Your task to perform on an android device: Open Yahoo.com Image 0: 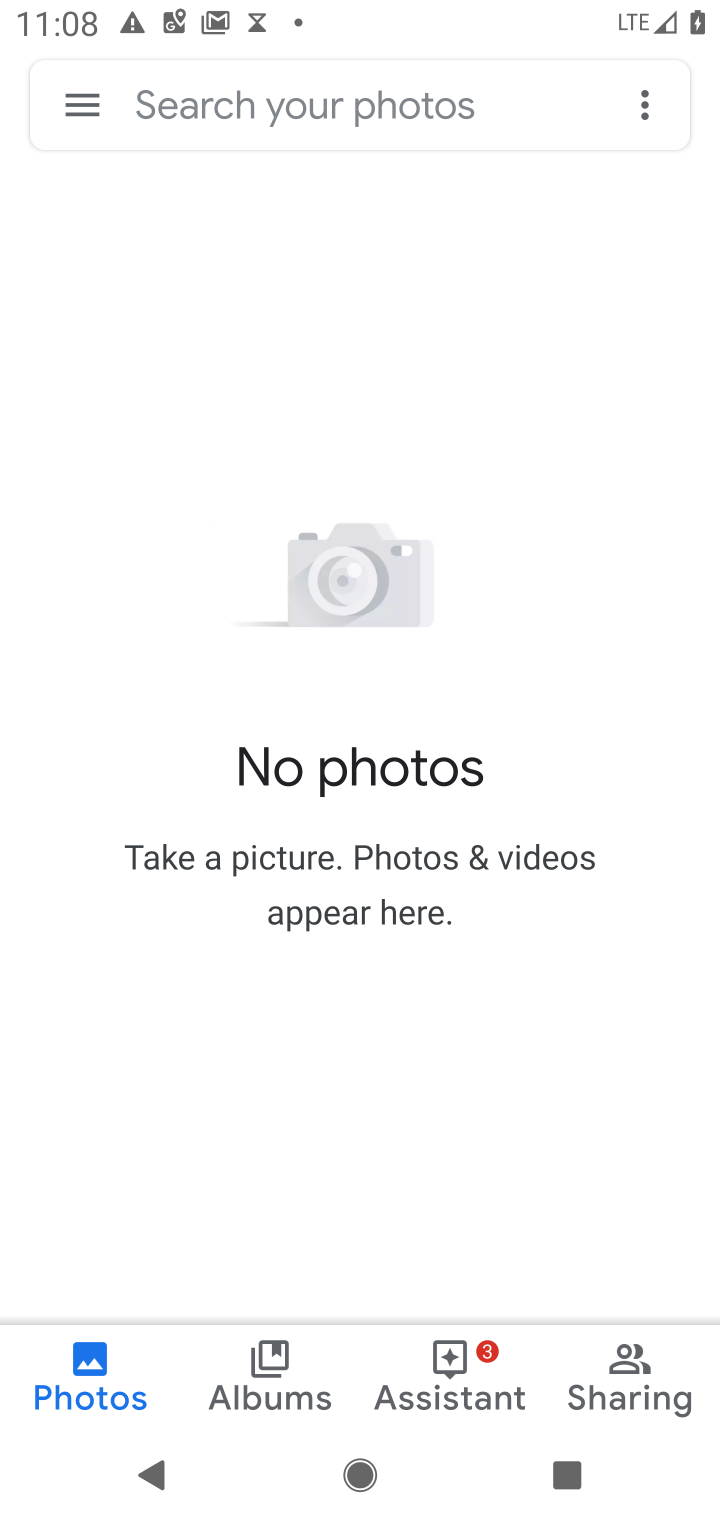
Step 0: press home button
Your task to perform on an android device: Open Yahoo.com Image 1: 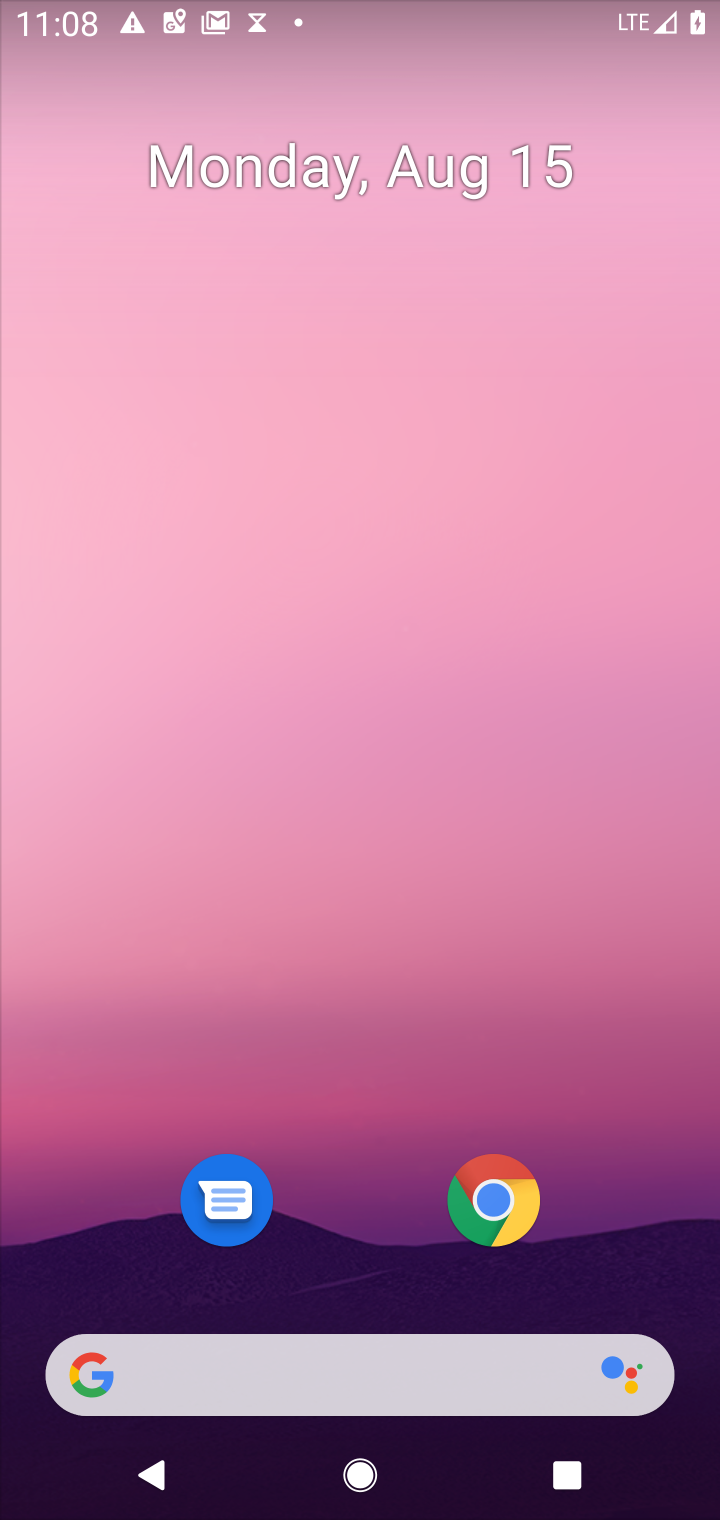
Step 1: click (519, 1207)
Your task to perform on an android device: Open Yahoo.com Image 2: 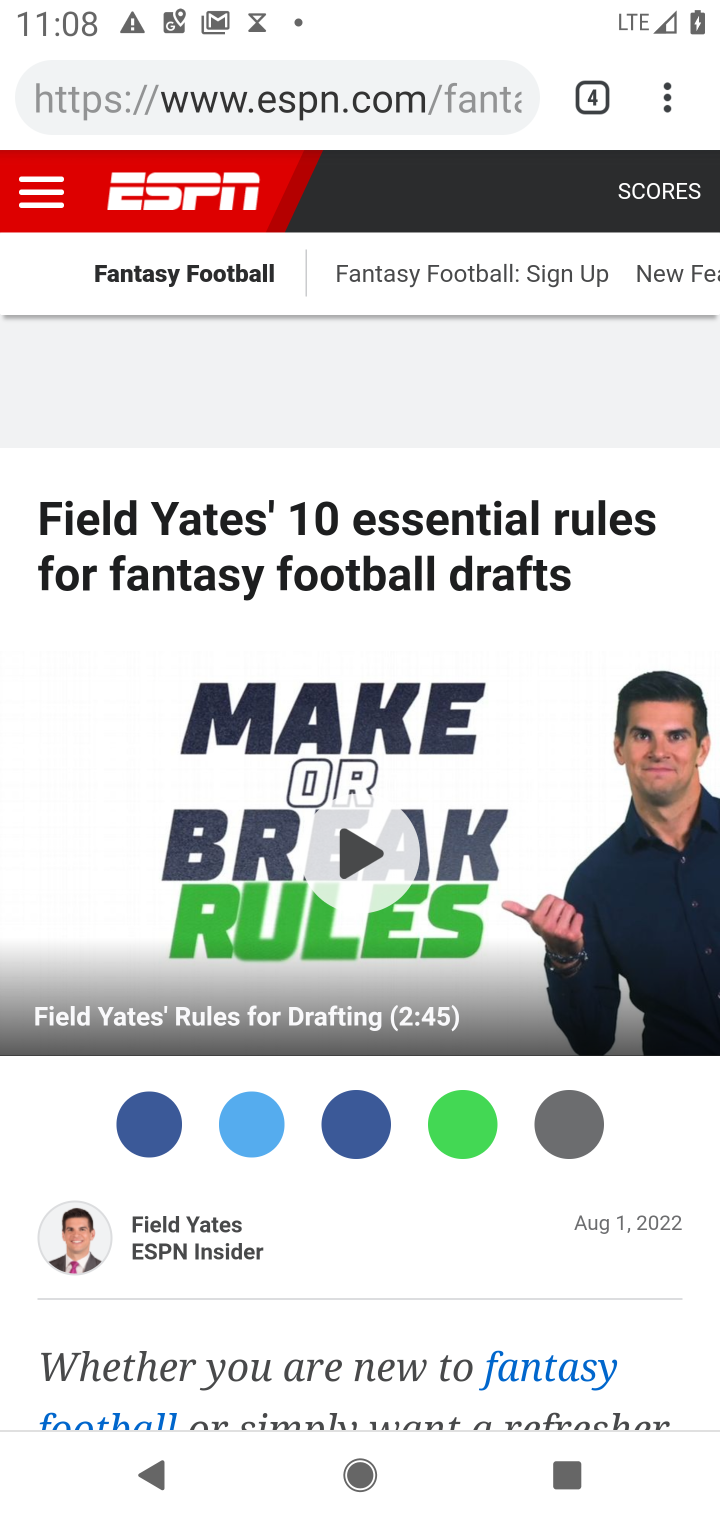
Step 2: click (584, 83)
Your task to perform on an android device: Open Yahoo.com Image 3: 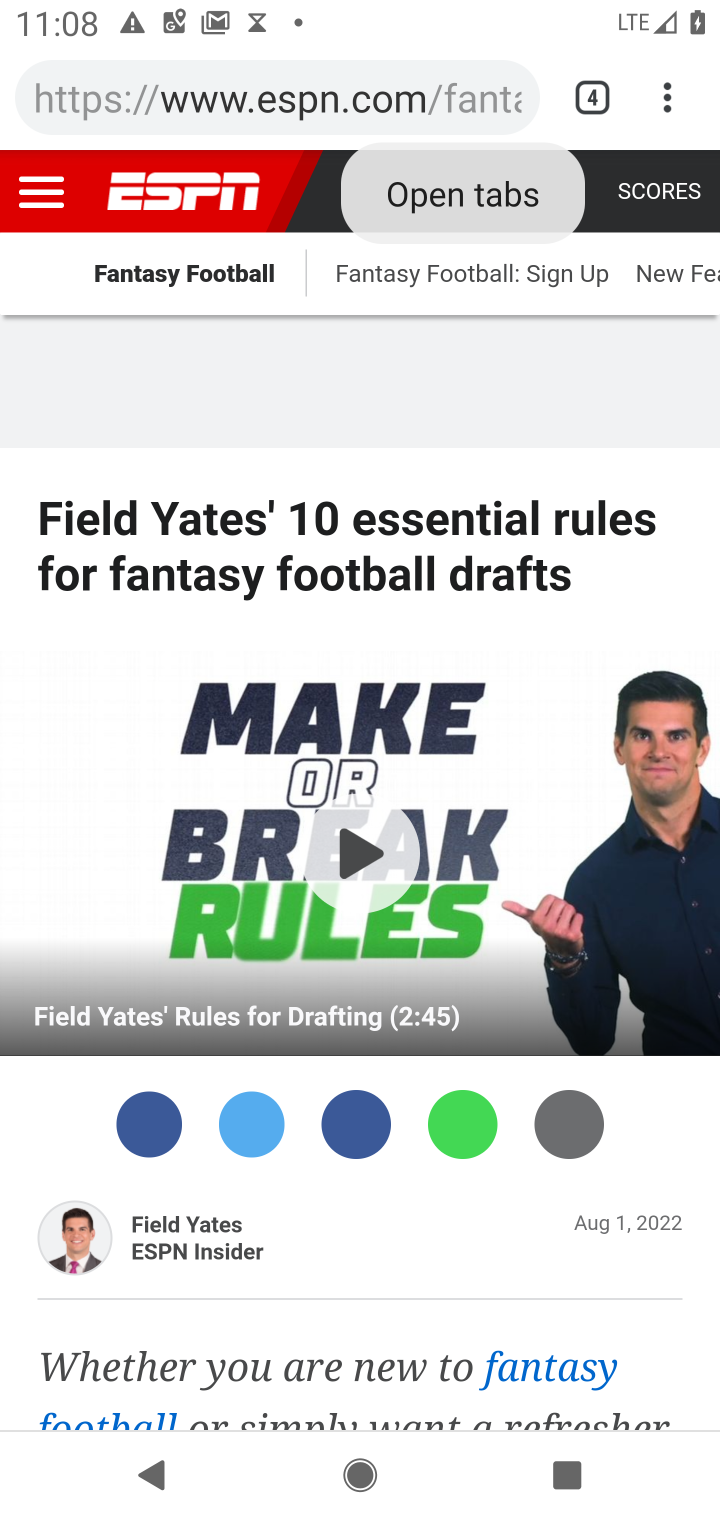
Step 3: click (587, 85)
Your task to perform on an android device: Open Yahoo.com Image 4: 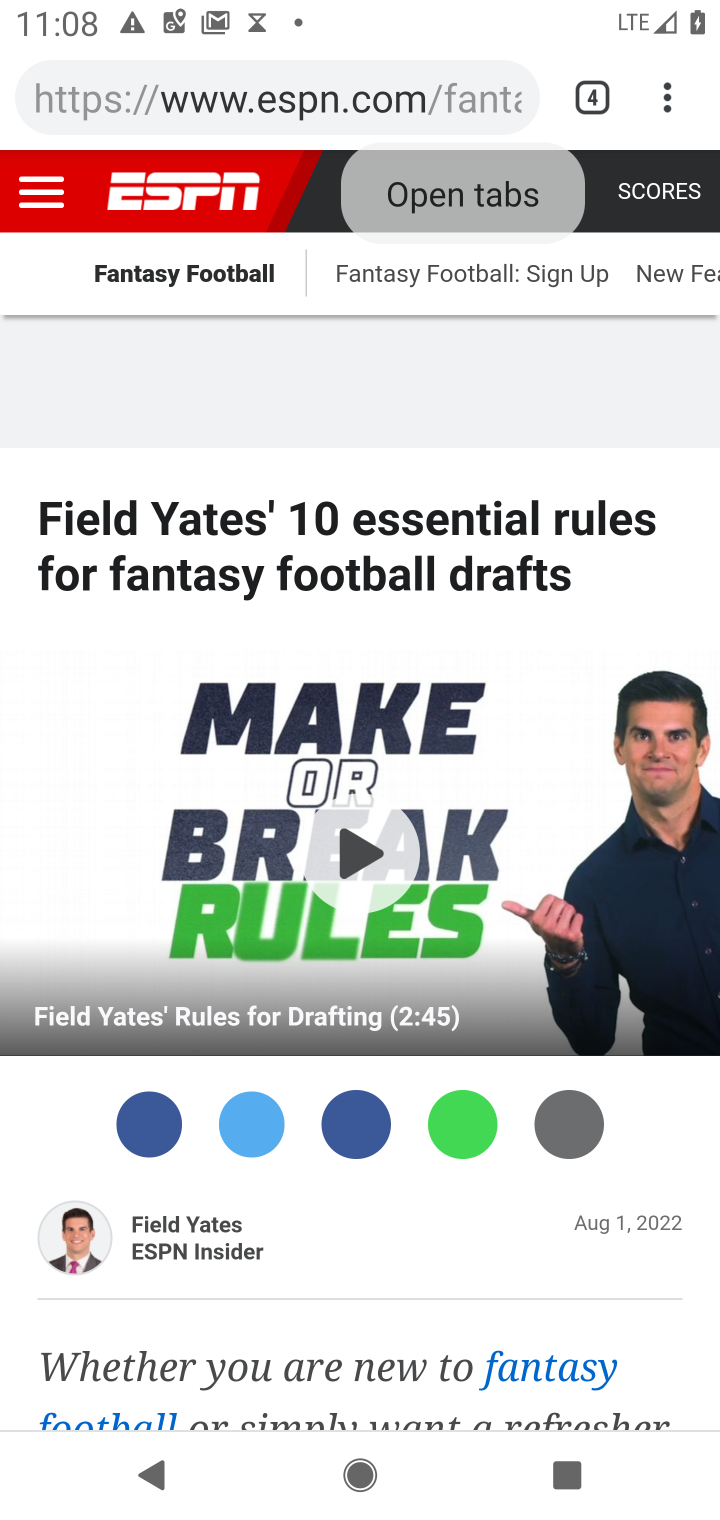
Step 4: click (604, 97)
Your task to perform on an android device: Open Yahoo.com Image 5: 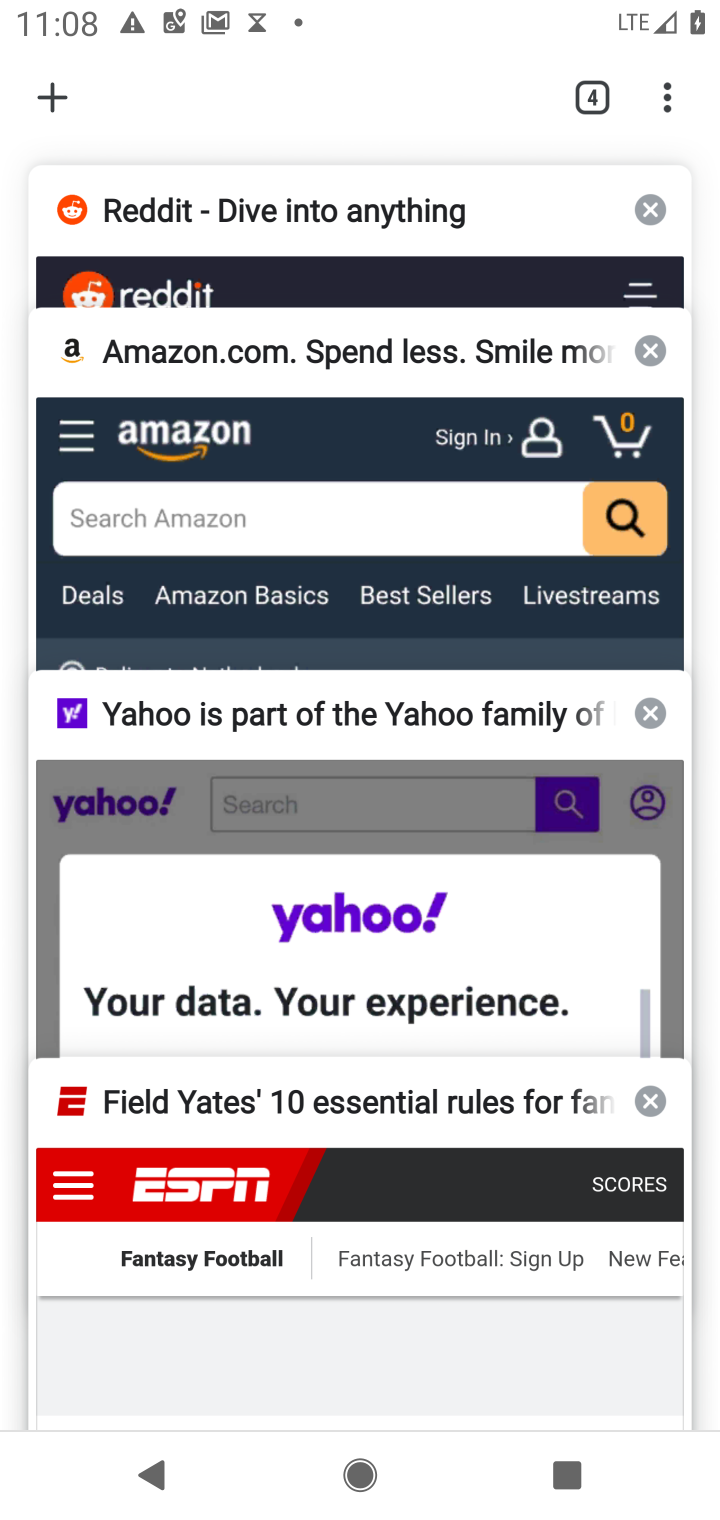
Step 5: click (57, 99)
Your task to perform on an android device: Open Yahoo.com Image 6: 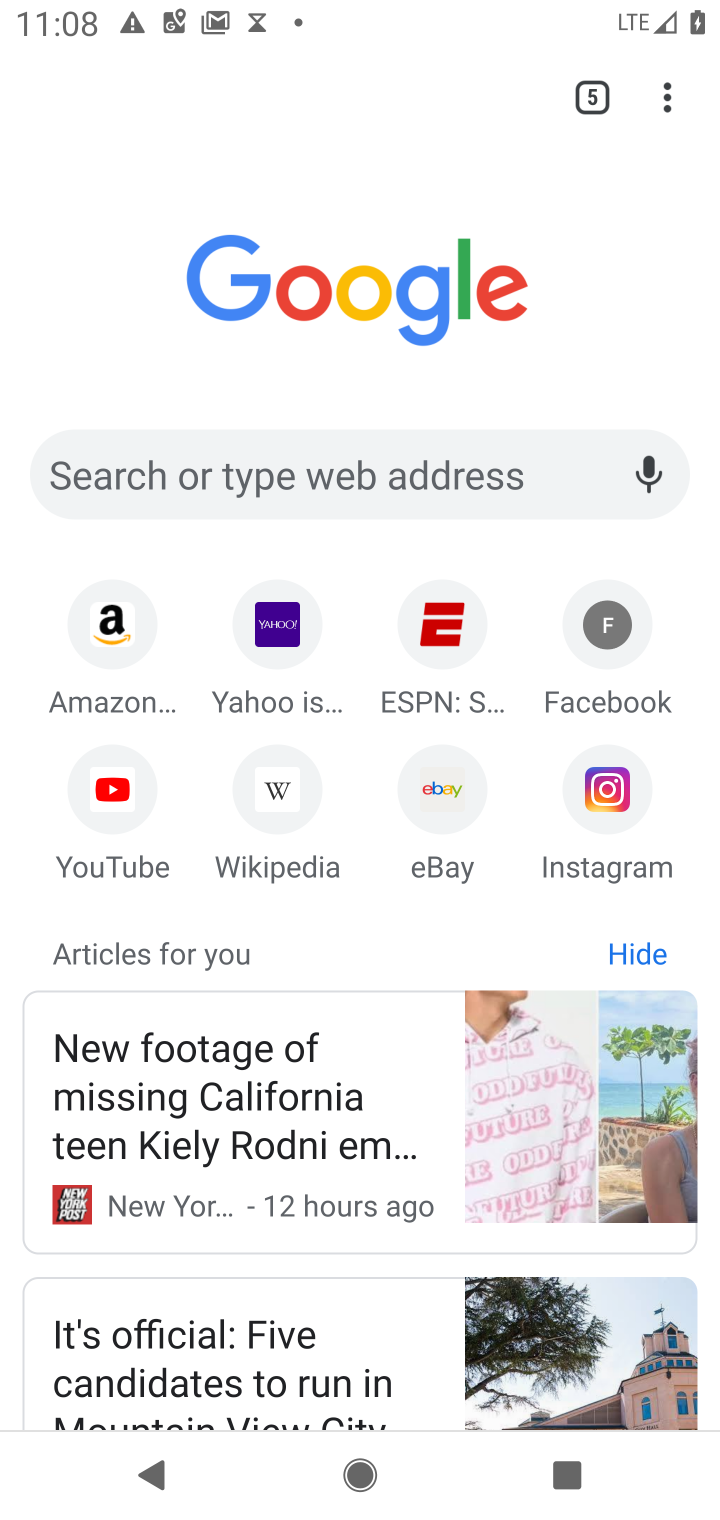
Step 6: click (296, 640)
Your task to perform on an android device: Open Yahoo.com Image 7: 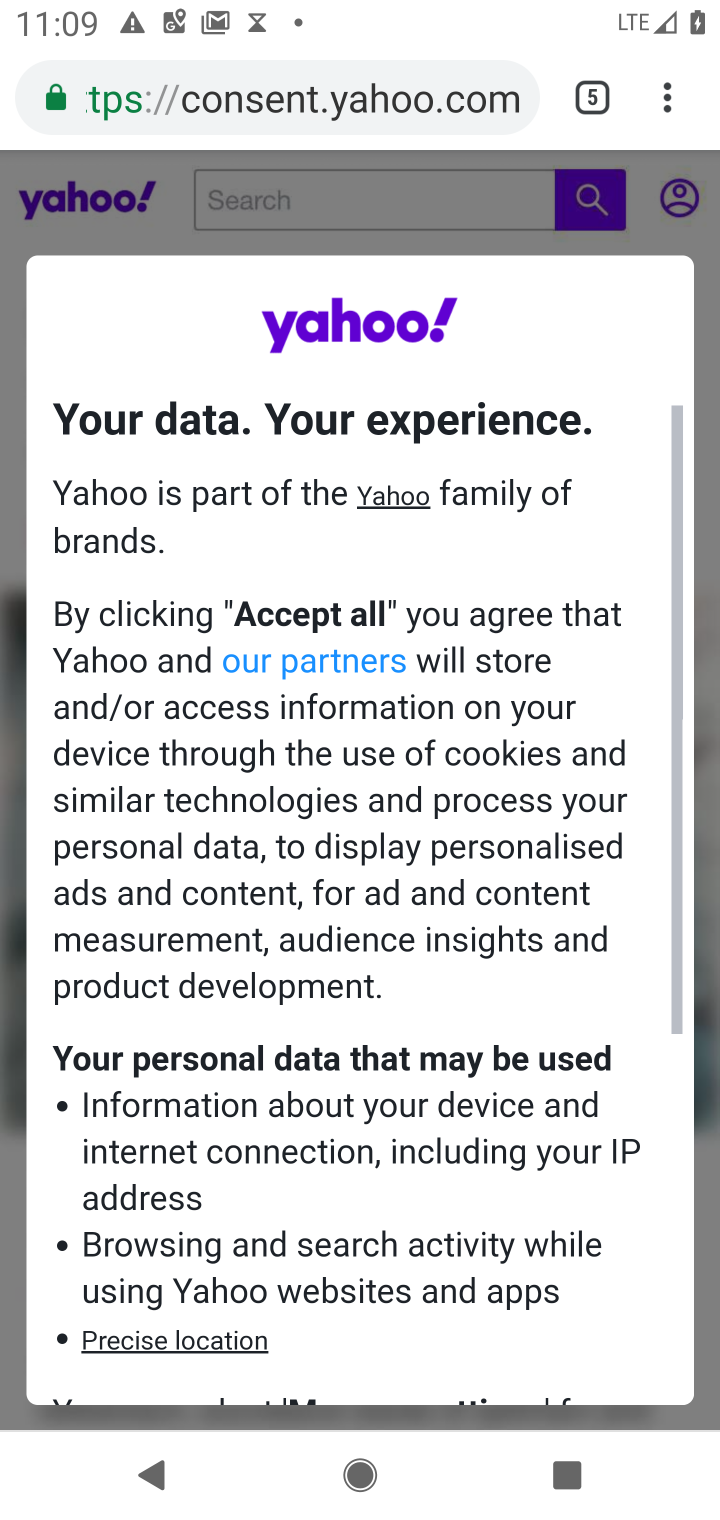
Step 7: task complete